Your task to perform on an android device: turn on the 24-hour format for clock Image 0: 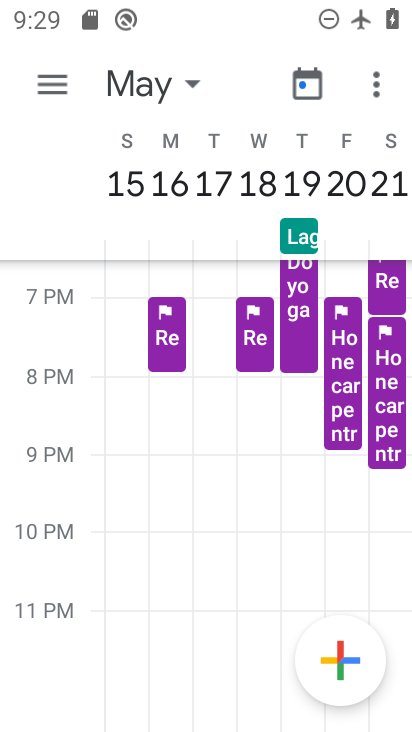
Step 0: press home button
Your task to perform on an android device: turn on the 24-hour format for clock Image 1: 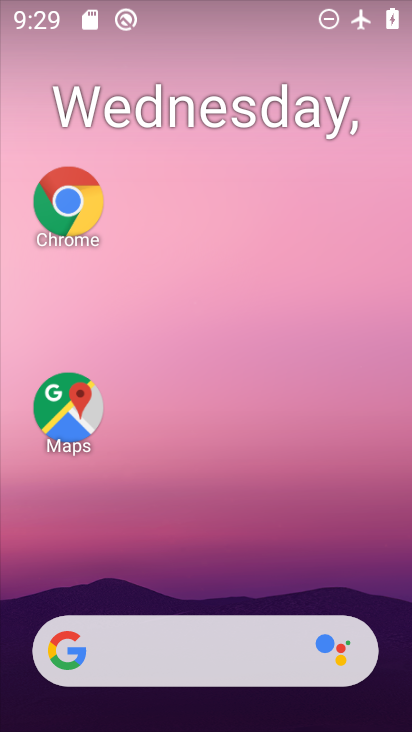
Step 1: drag from (231, 599) to (242, 168)
Your task to perform on an android device: turn on the 24-hour format for clock Image 2: 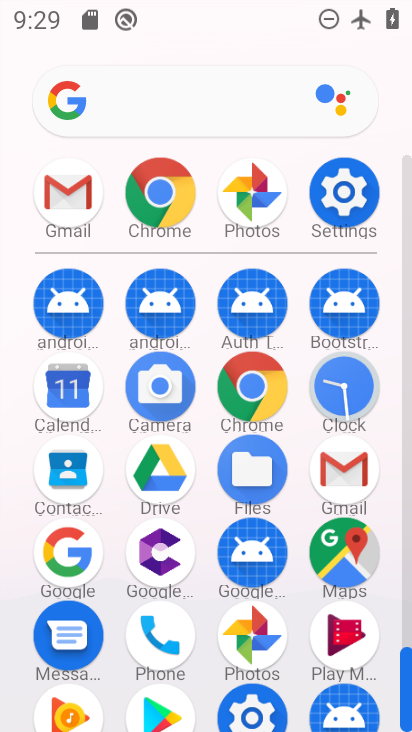
Step 2: click (344, 391)
Your task to perform on an android device: turn on the 24-hour format for clock Image 3: 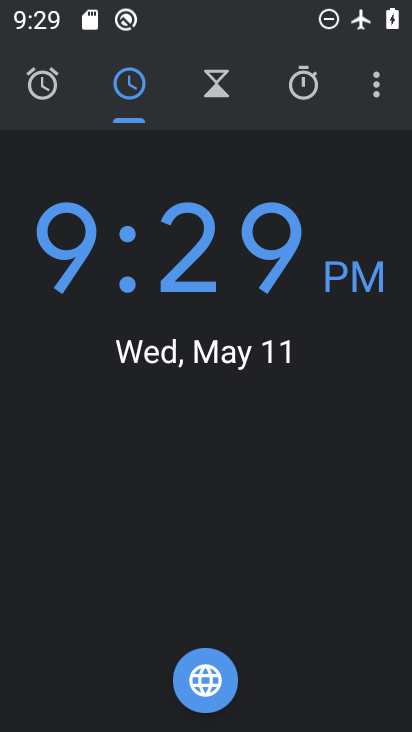
Step 3: click (379, 81)
Your task to perform on an android device: turn on the 24-hour format for clock Image 4: 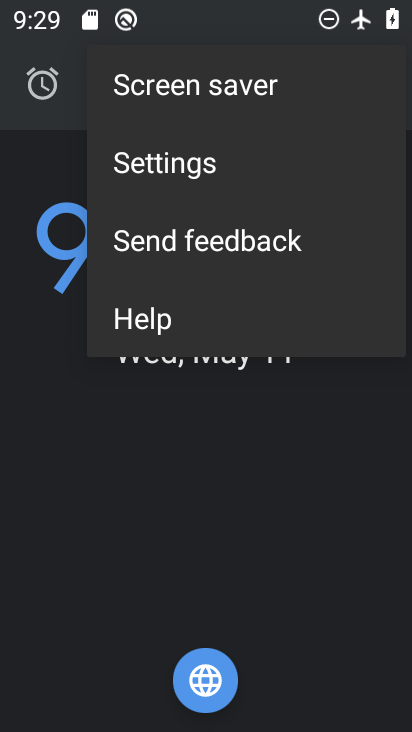
Step 4: click (158, 166)
Your task to perform on an android device: turn on the 24-hour format for clock Image 5: 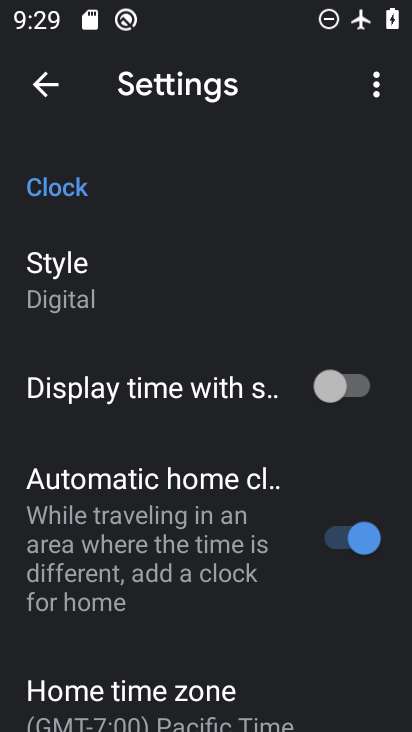
Step 5: drag from (182, 711) to (196, 329)
Your task to perform on an android device: turn on the 24-hour format for clock Image 6: 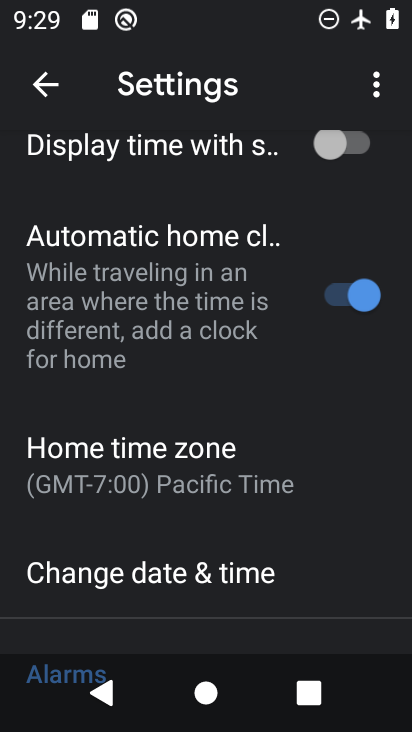
Step 6: click (211, 591)
Your task to perform on an android device: turn on the 24-hour format for clock Image 7: 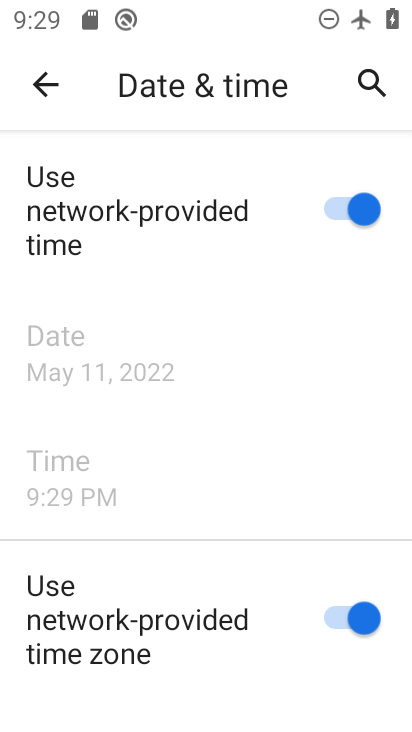
Step 7: drag from (262, 573) to (262, 117)
Your task to perform on an android device: turn on the 24-hour format for clock Image 8: 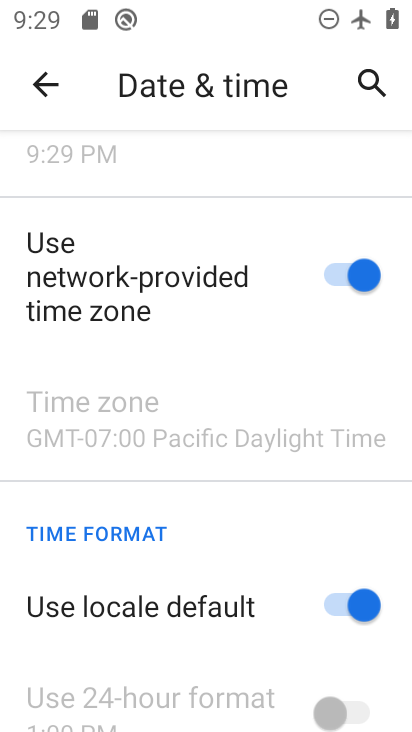
Step 8: click (334, 587)
Your task to perform on an android device: turn on the 24-hour format for clock Image 9: 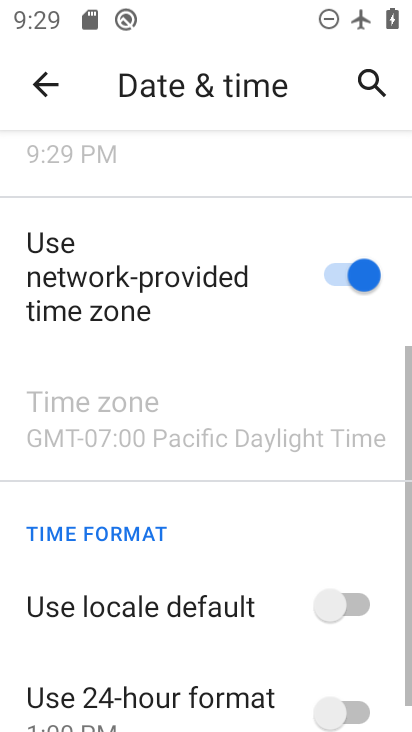
Step 9: click (346, 716)
Your task to perform on an android device: turn on the 24-hour format for clock Image 10: 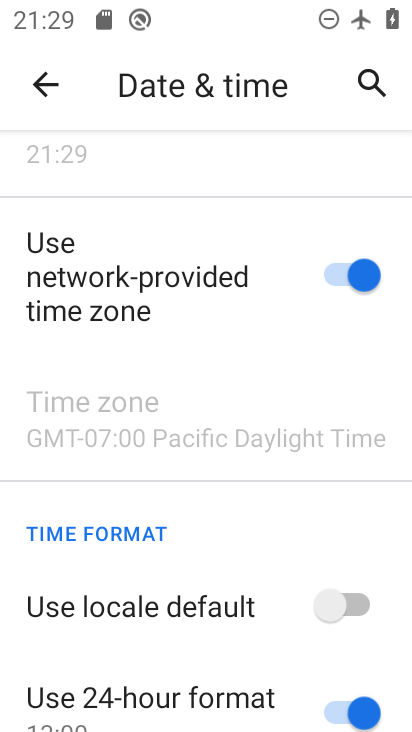
Step 10: task complete